Your task to perform on an android device: turn vacation reply on in the gmail app Image 0: 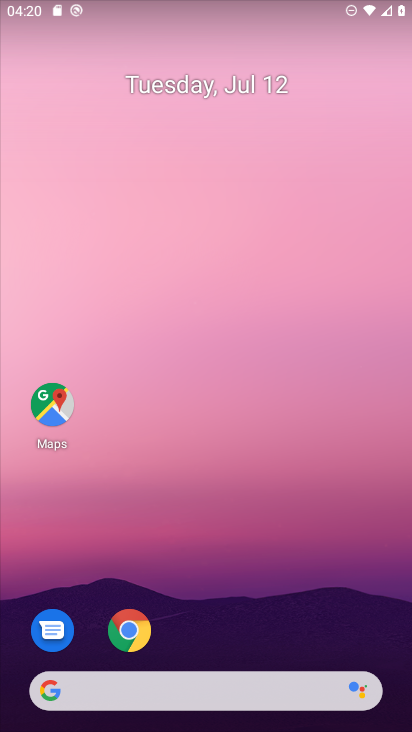
Step 0: drag from (381, 634) to (331, 204)
Your task to perform on an android device: turn vacation reply on in the gmail app Image 1: 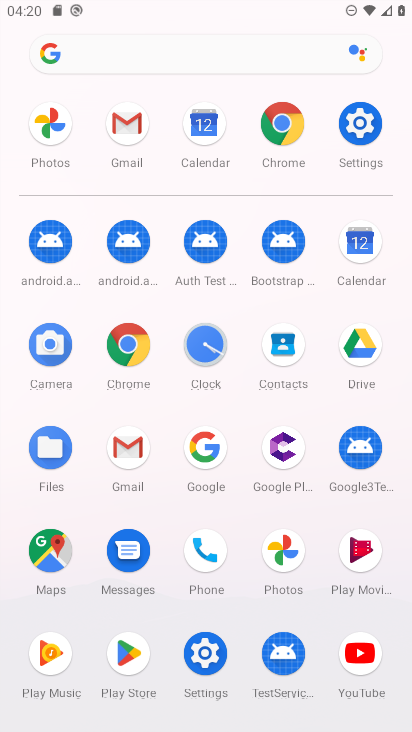
Step 1: click (127, 445)
Your task to perform on an android device: turn vacation reply on in the gmail app Image 2: 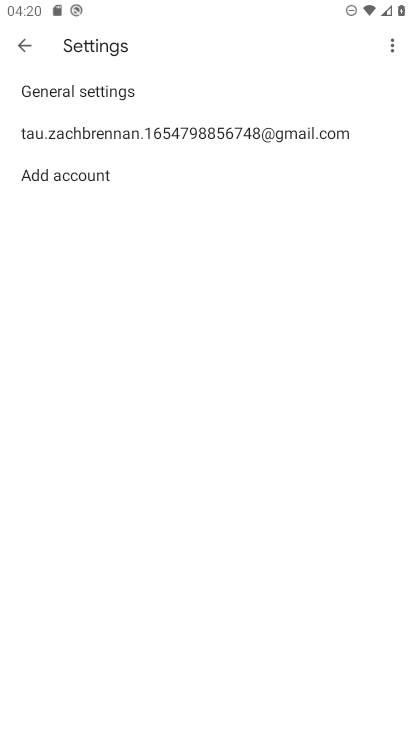
Step 2: click (108, 129)
Your task to perform on an android device: turn vacation reply on in the gmail app Image 3: 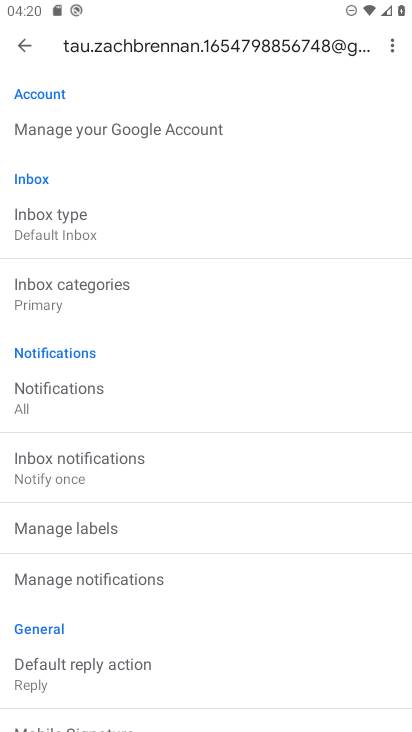
Step 3: drag from (236, 660) to (219, 252)
Your task to perform on an android device: turn vacation reply on in the gmail app Image 4: 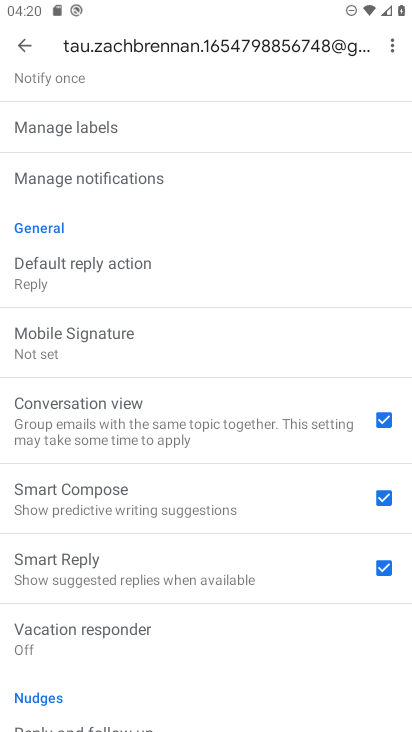
Step 4: click (95, 634)
Your task to perform on an android device: turn vacation reply on in the gmail app Image 5: 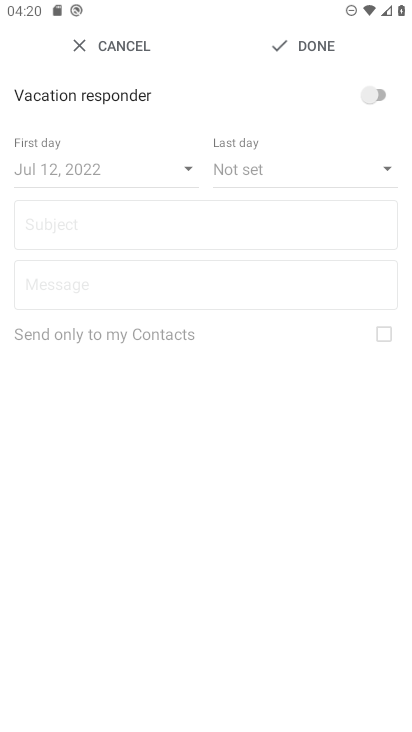
Step 5: click (381, 92)
Your task to perform on an android device: turn vacation reply on in the gmail app Image 6: 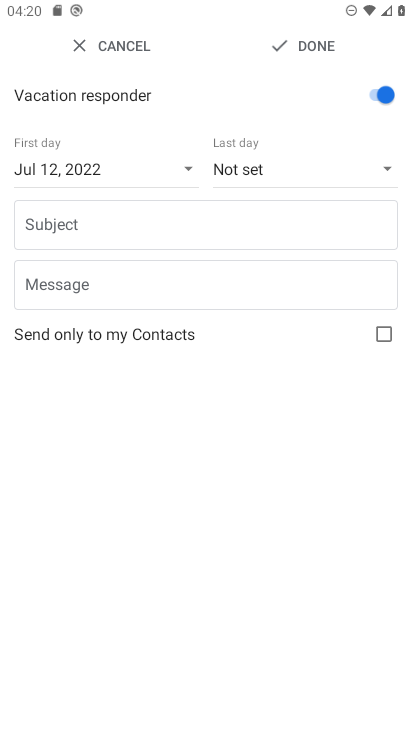
Step 6: click (306, 37)
Your task to perform on an android device: turn vacation reply on in the gmail app Image 7: 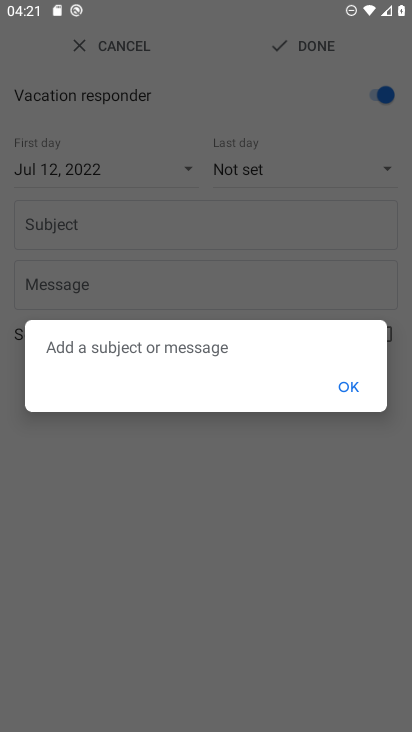
Step 7: click (348, 384)
Your task to perform on an android device: turn vacation reply on in the gmail app Image 8: 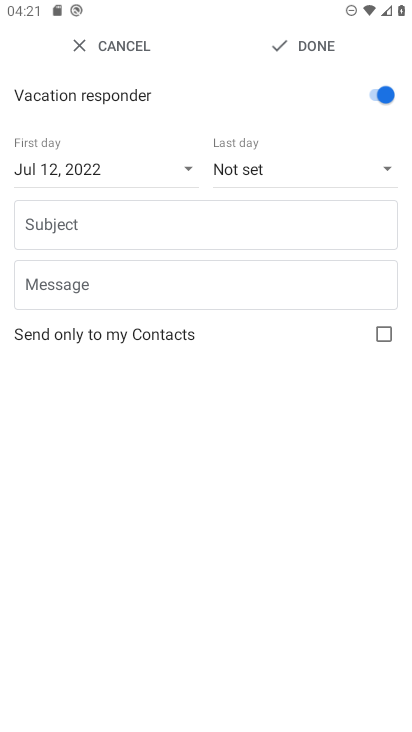
Step 8: task complete